Your task to perform on an android device: Open Google Chrome Image 0: 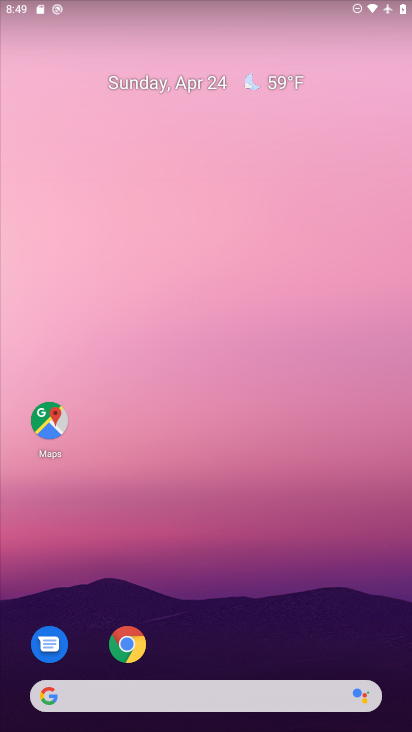
Step 0: drag from (228, 596) to (252, 33)
Your task to perform on an android device: Open Google Chrome Image 1: 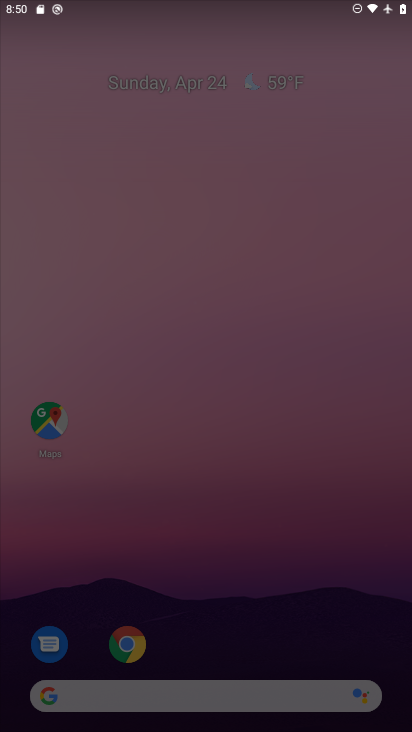
Step 1: press home button
Your task to perform on an android device: Open Google Chrome Image 2: 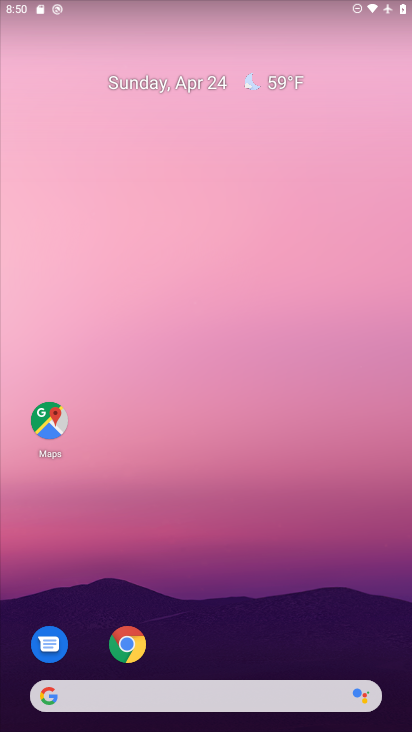
Step 2: drag from (231, 656) to (228, 53)
Your task to perform on an android device: Open Google Chrome Image 3: 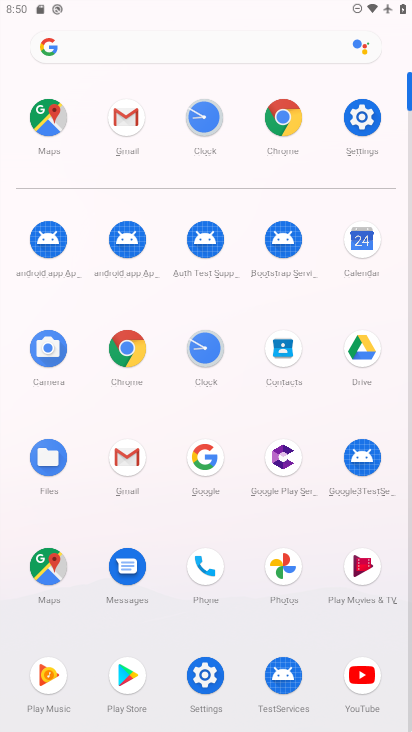
Step 3: click (124, 343)
Your task to perform on an android device: Open Google Chrome Image 4: 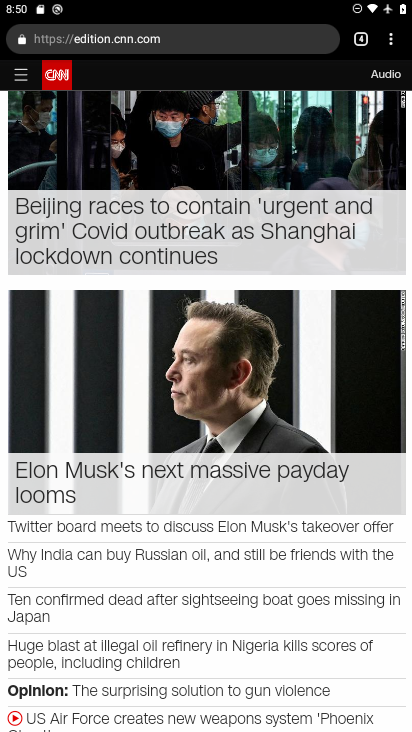
Step 4: task complete